Your task to perform on an android device: Open Google Chrome and click the shortcut for Amazon.com Image 0: 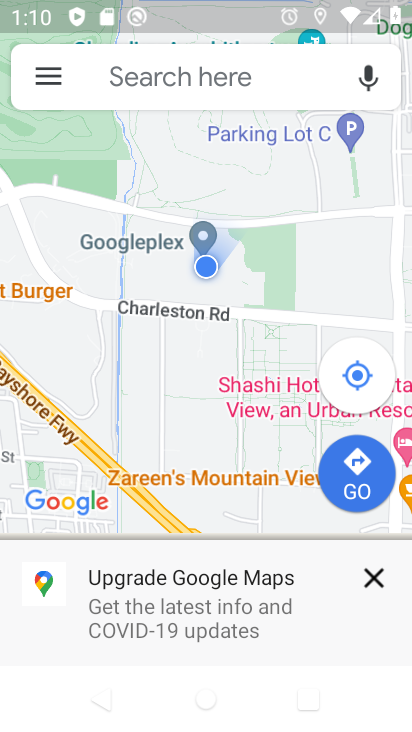
Step 0: press home button
Your task to perform on an android device: Open Google Chrome and click the shortcut for Amazon.com Image 1: 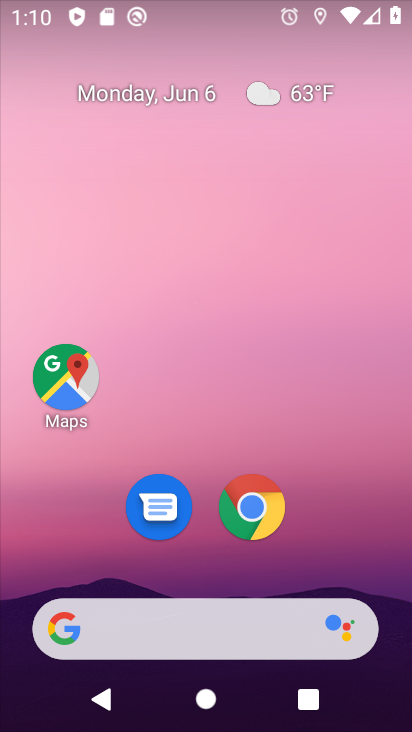
Step 1: click (263, 502)
Your task to perform on an android device: Open Google Chrome and click the shortcut for Amazon.com Image 2: 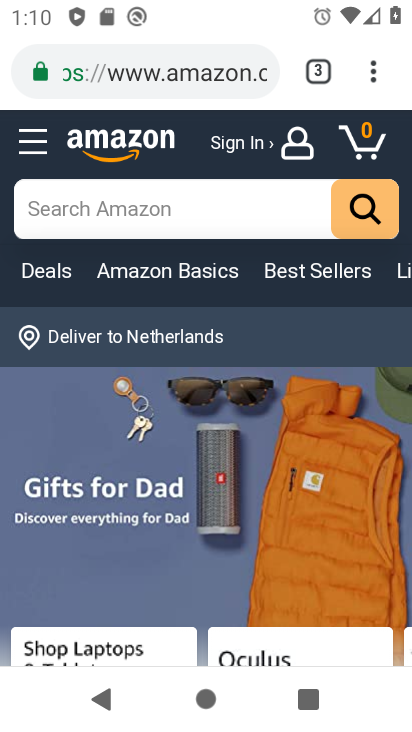
Step 2: task complete